Your task to perform on an android device: Go to Android settings Image 0: 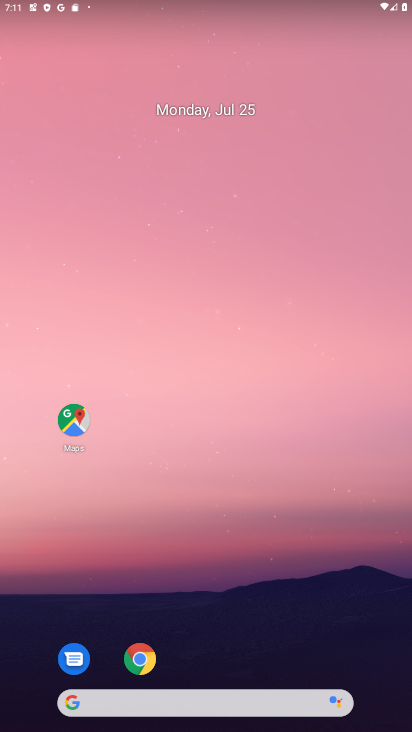
Step 0: click (143, 84)
Your task to perform on an android device: Go to Android settings Image 1: 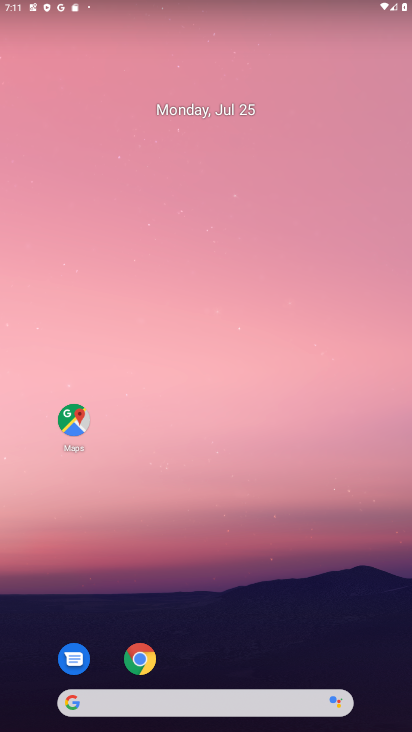
Step 1: drag from (183, 596) to (212, 24)
Your task to perform on an android device: Go to Android settings Image 2: 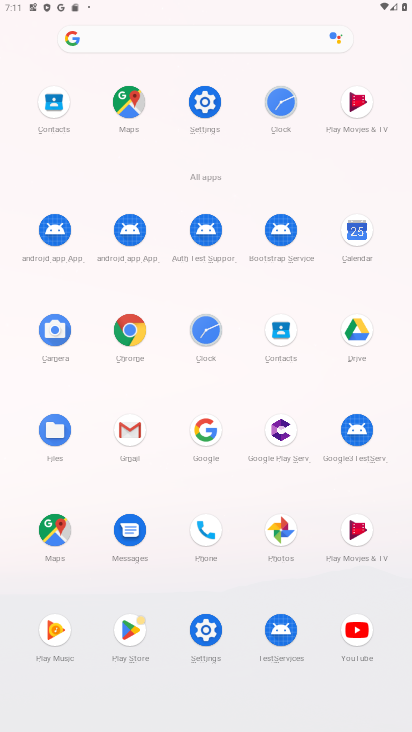
Step 2: click (201, 171)
Your task to perform on an android device: Go to Android settings Image 3: 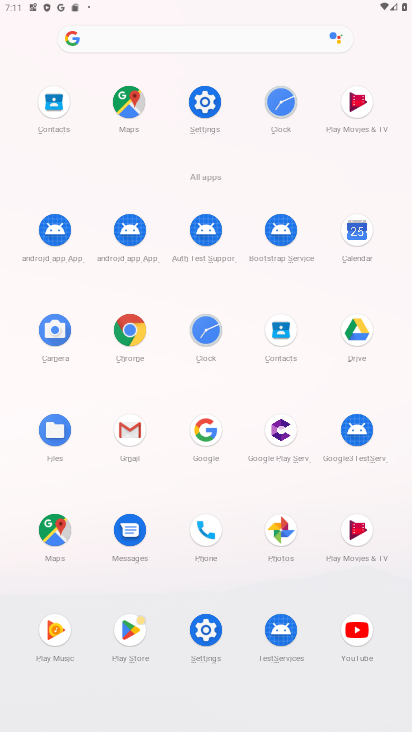
Step 3: click (201, 106)
Your task to perform on an android device: Go to Android settings Image 4: 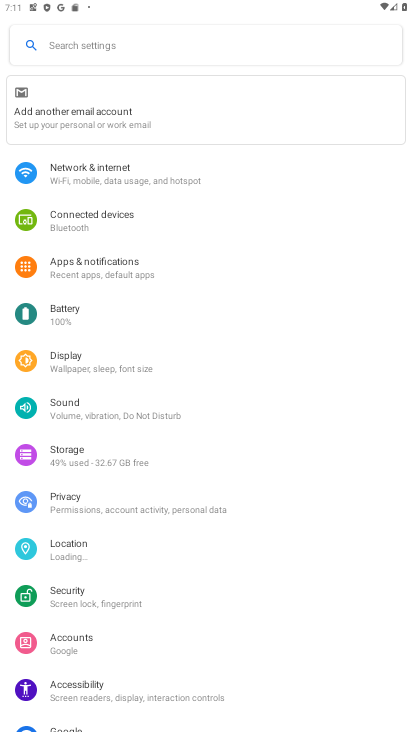
Step 4: drag from (138, 524) to (138, 187)
Your task to perform on an android device: Go to Android settings Image 5: 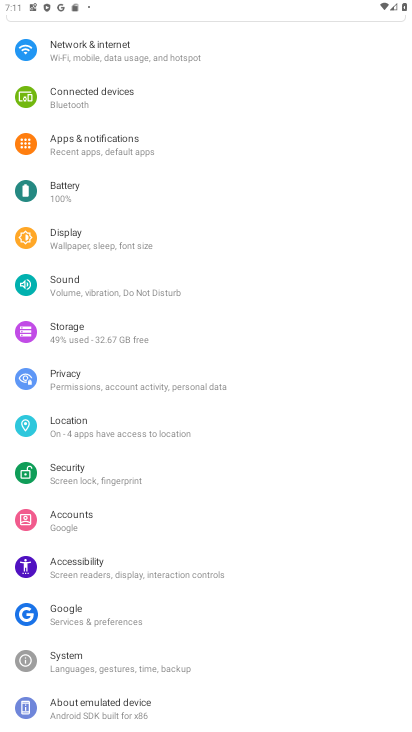
Step 5: click (64, 713)
Your task to perform on an android device: Go to Android settings Image 6: 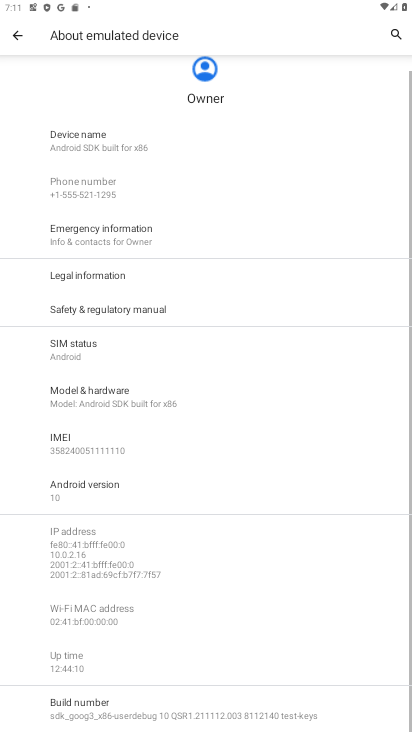
Step 6: click (12, 35)
Your task to perform on an android device: Go to Android settings Image 7: 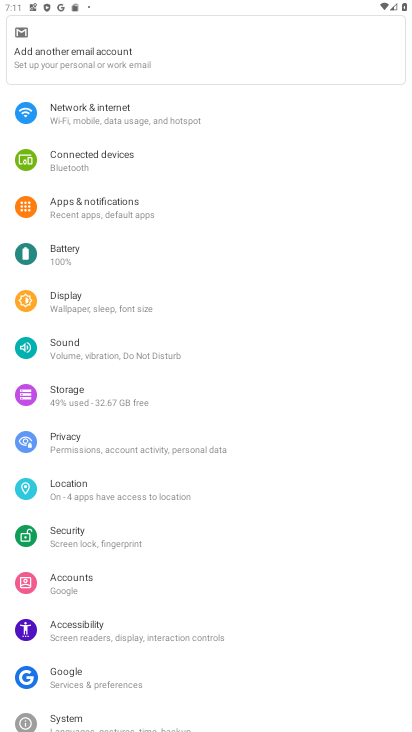
Step 7: drag from (94, 680) to (96, 447)
Your task to perform on an android device: Go to Android settings Image 8: 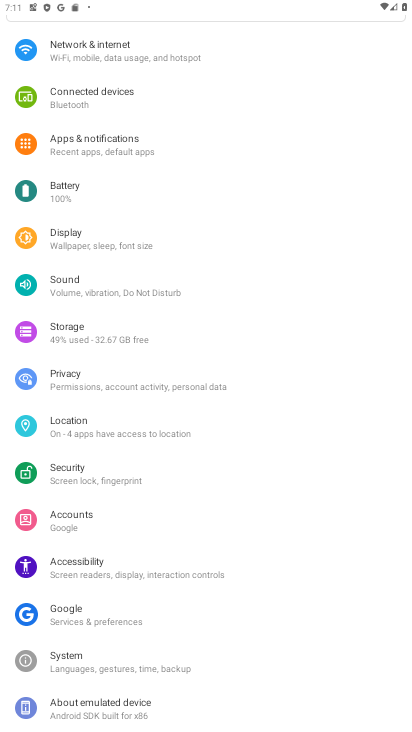
Step 8: click (79, 723)
Your task to perform on an android device: Go to Android settings Image 9: 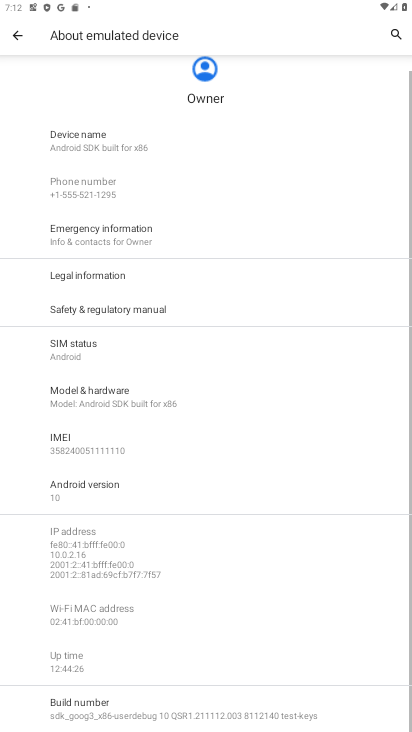
Step 9: click (70, 490)
Your task to perform on an android device: Go to Android settings Image 10: 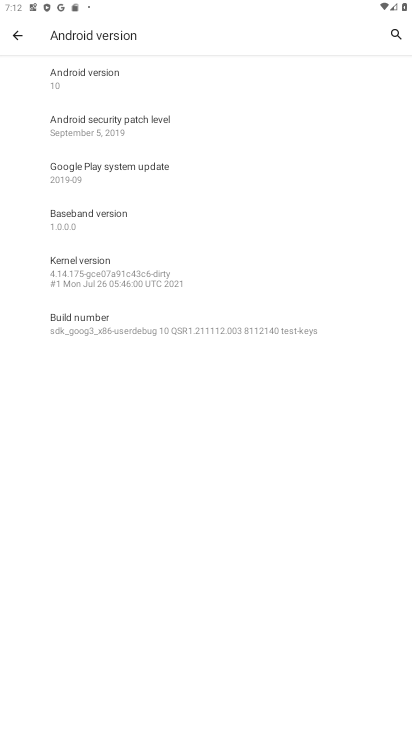
Step 10: task complete